Your task to perform on an android device: turn on javascript in the chrome app Image 0: 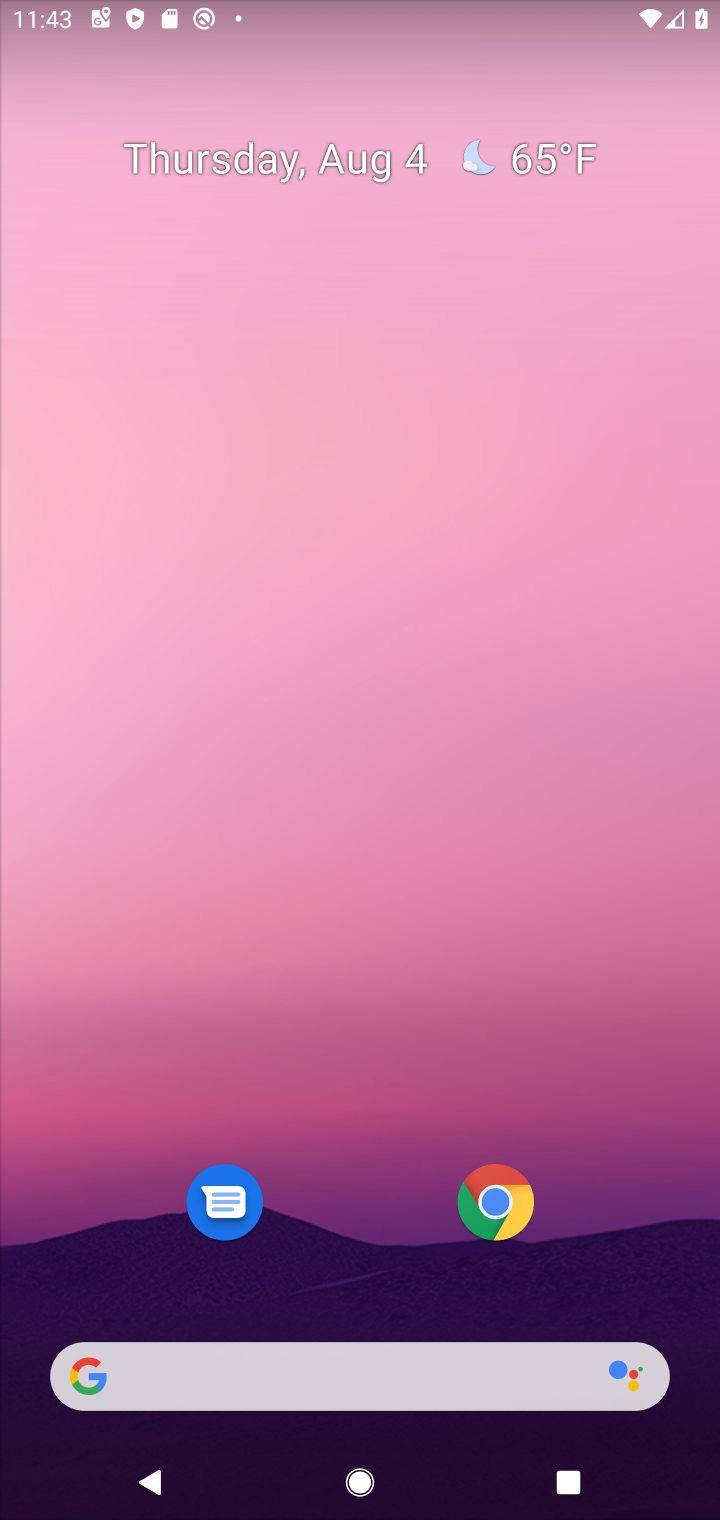
Step 0: click (489, 1198)
Your task to perform on an android device: turn on javascript in the chrome app Image 1: 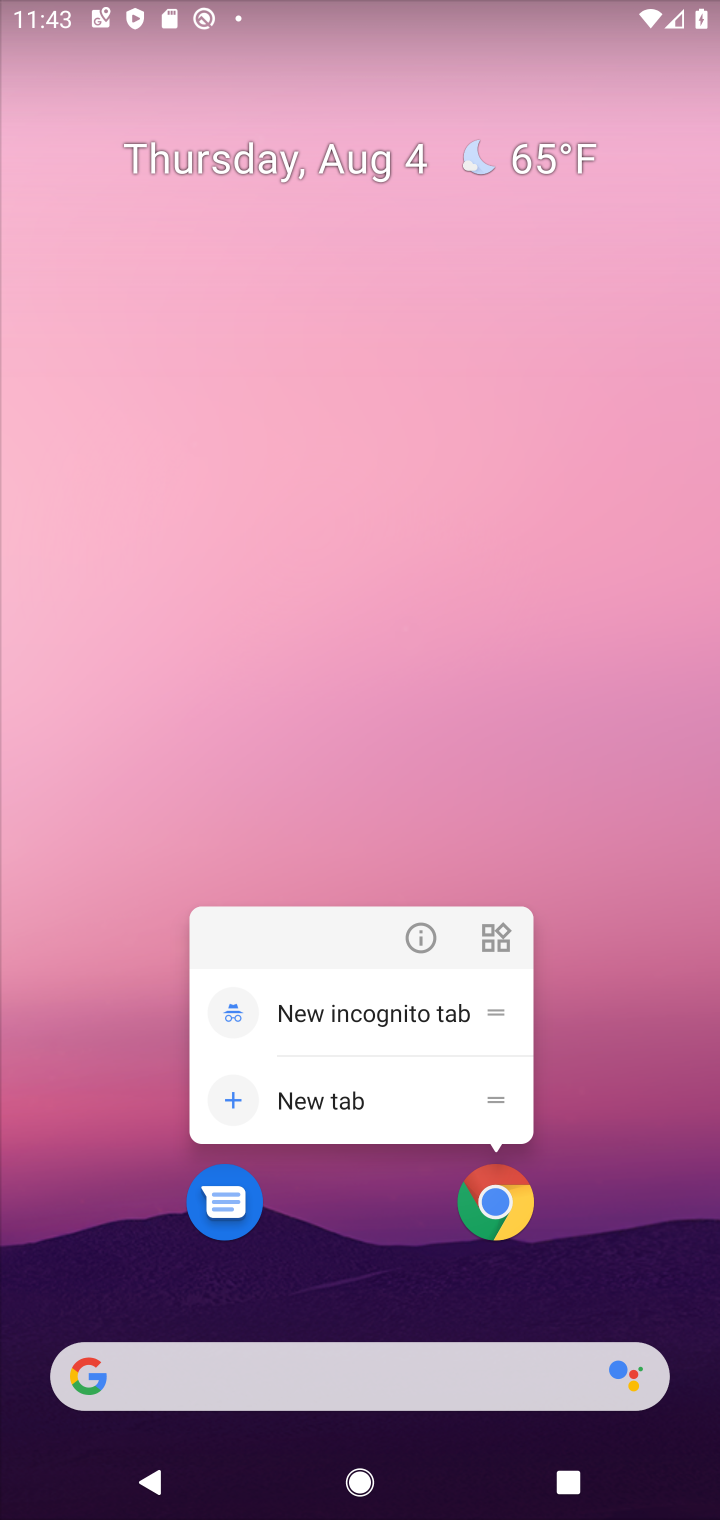
Step 1: click (491, 1190)
Your task to perform on an android device: turn on javascript in the chrome app Image 2: 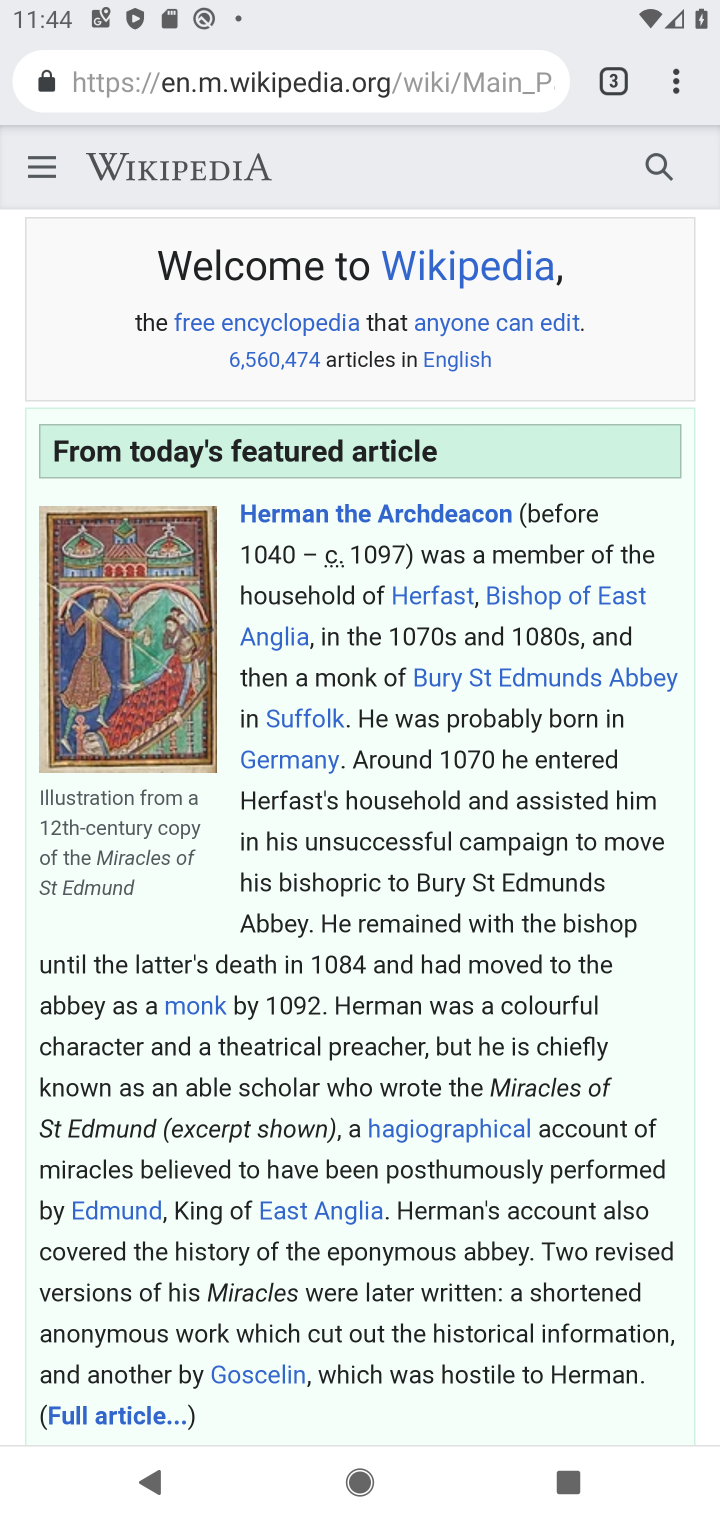
Step 2: drag from (664, 68) to (386, 987)
Your task to perform on an android device: turn on javascript in the chrome app Image 3: 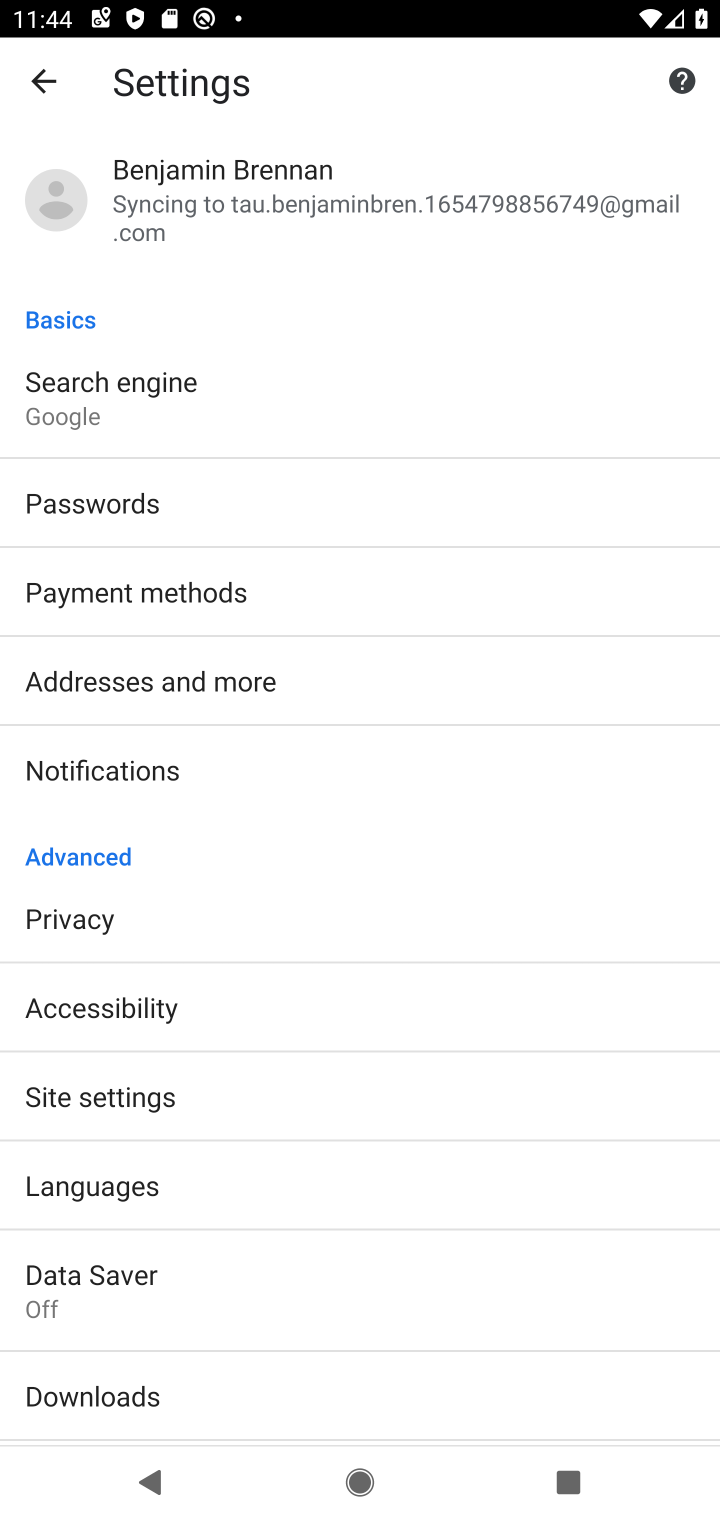
Step 3: click (187, 1087)
Your task to perform on an android device: turn on javascript in the chrome app Image 4: 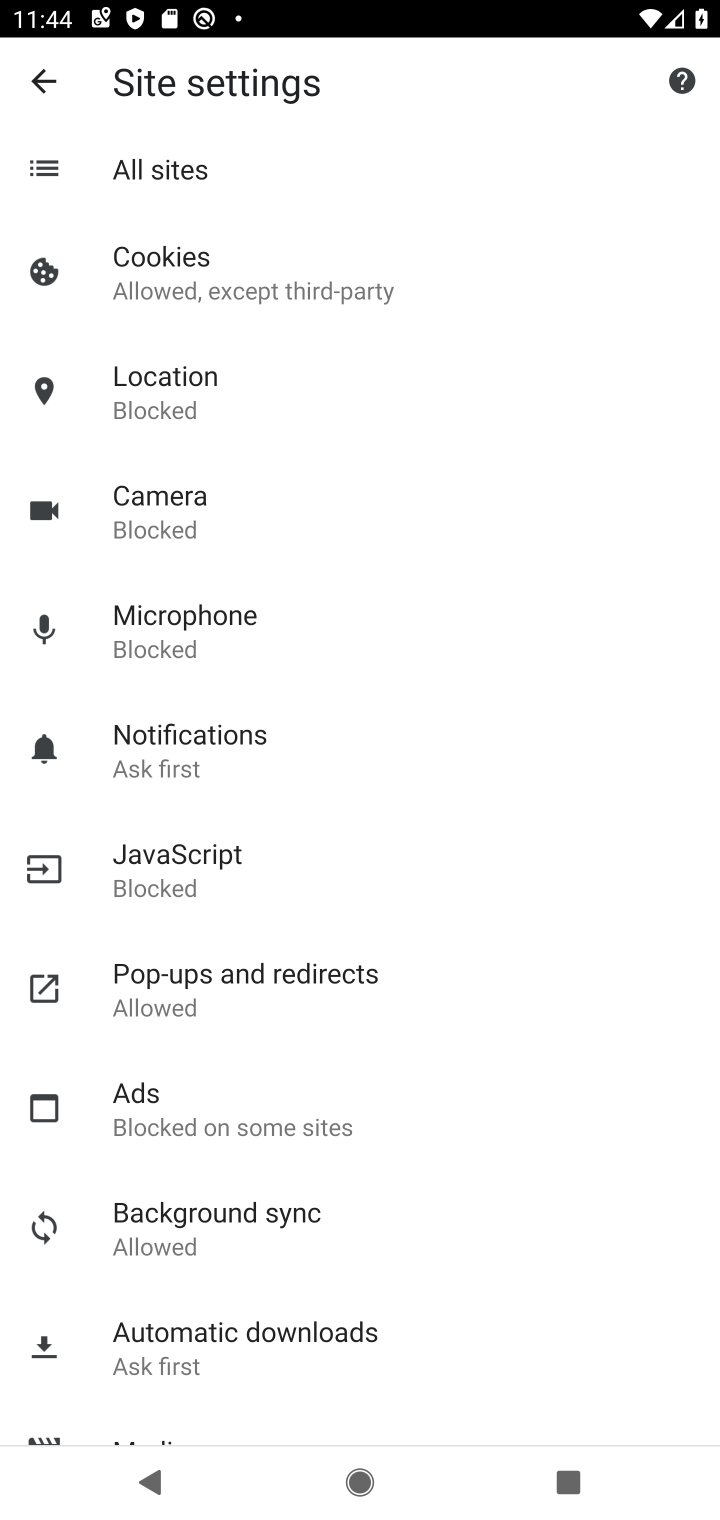
Step 4: click (213, 850)
Your task to perform on an android device: turn on javascript in the chrome app Image 5: 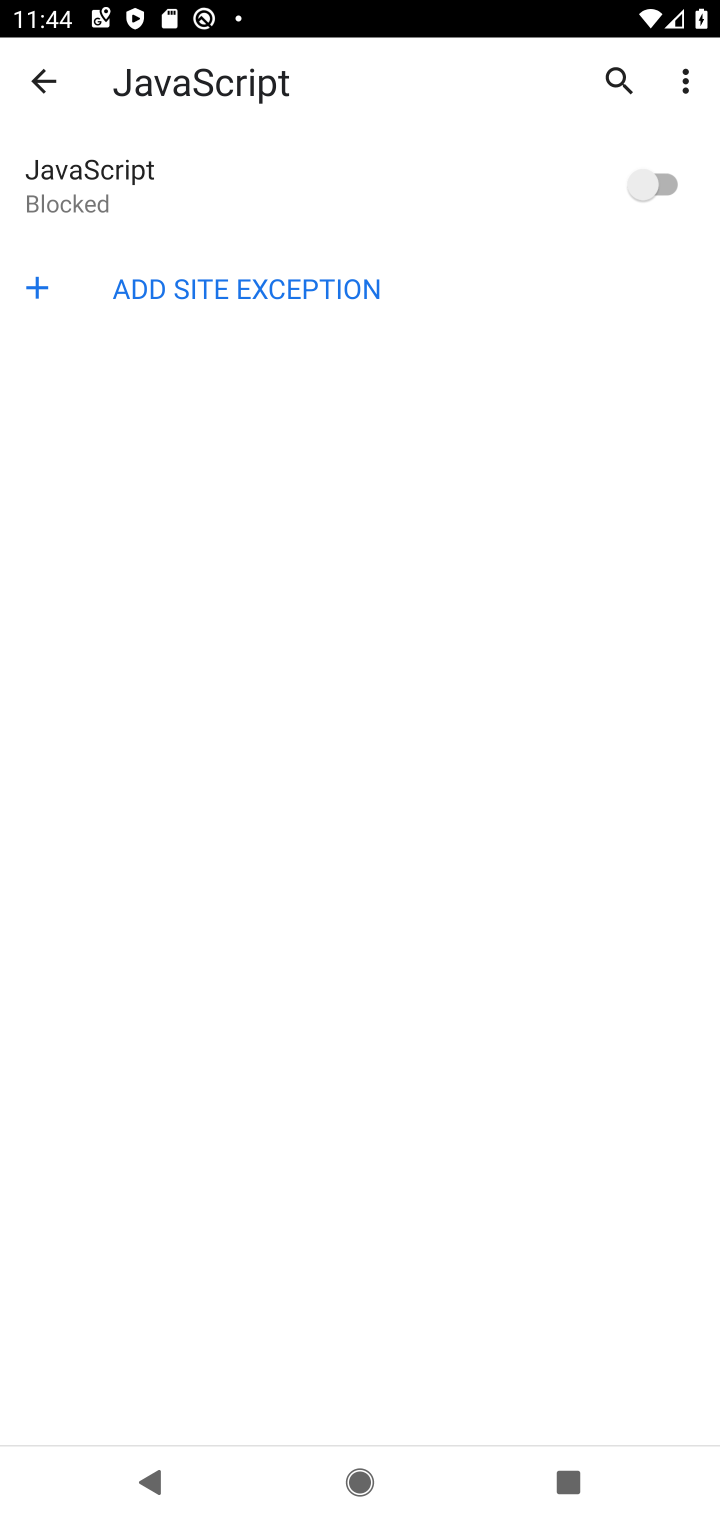
Step 5: click (630, 183)
Your task to perform on an android device: turn on javascript in the chrome app Image 6: 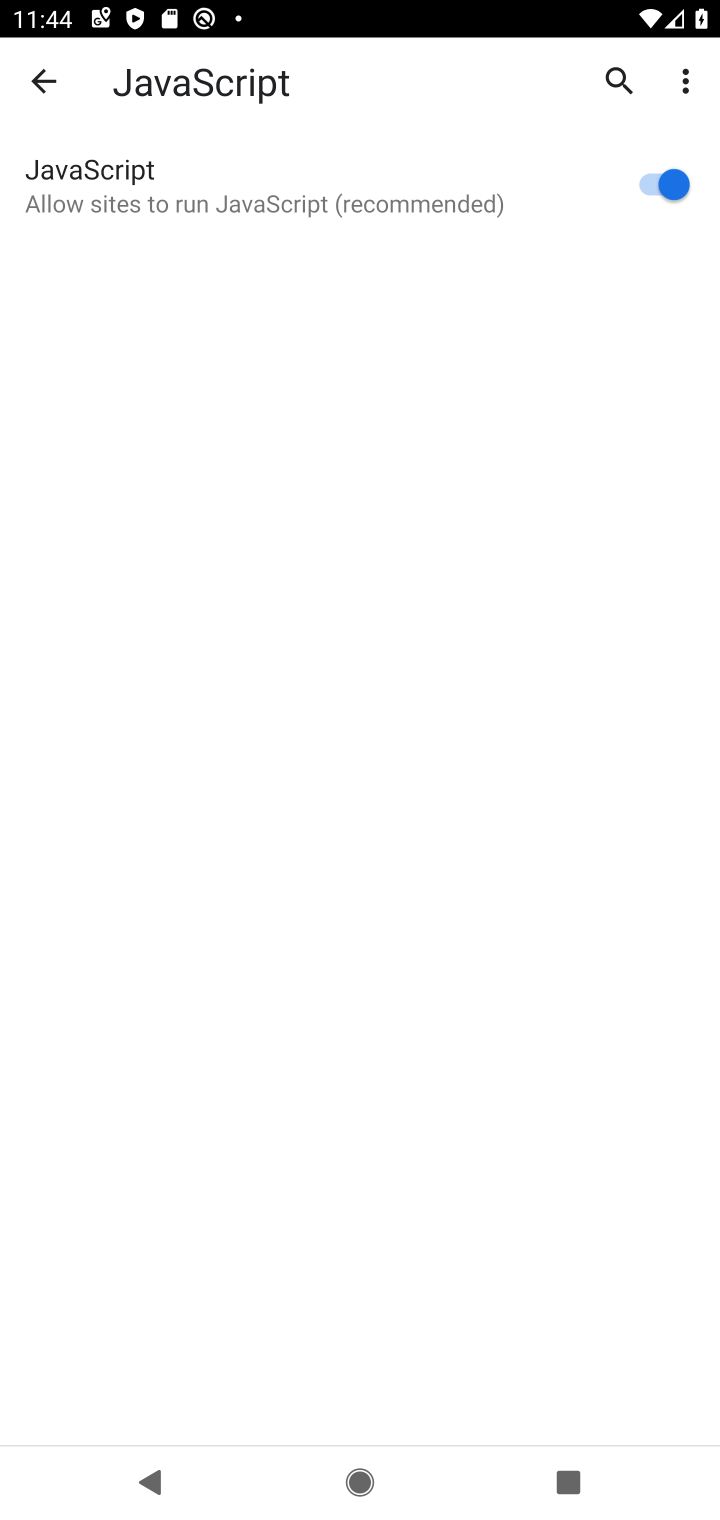
Step 6: task complete